Your task to perform on an android device: Open Google Maps and go to "Timeline" Image 0: 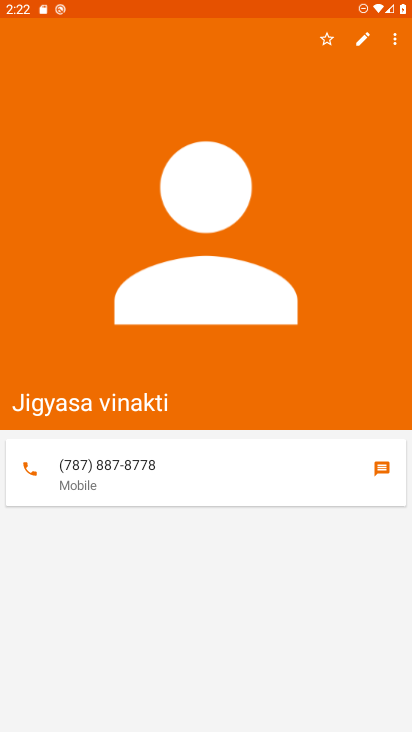
Step 0: press back button
Your task to perform on an android device: Open Google Maps and go to "Timeline" Image 1: 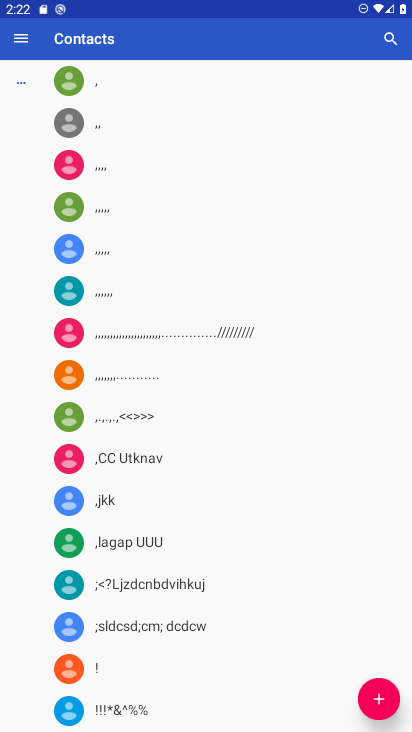
Step 1: press home button
Your task to perform on an android device: Open Google Maps and go to "Timeline" Image 2: 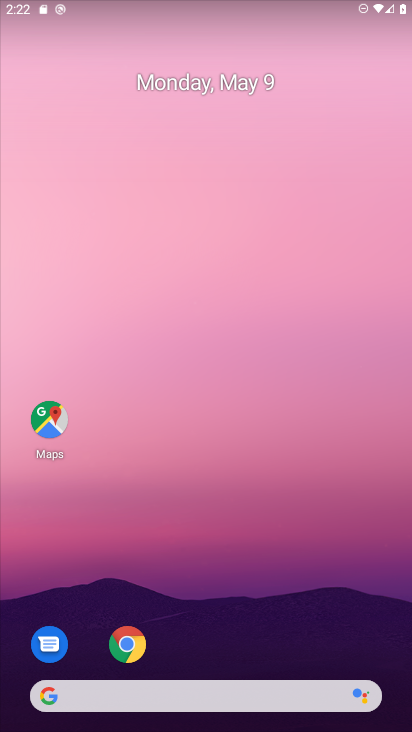
Step 2: click (46, 450)
Your task to perform on an android device: Open Google Maps and go to "Timeline" Image 3: 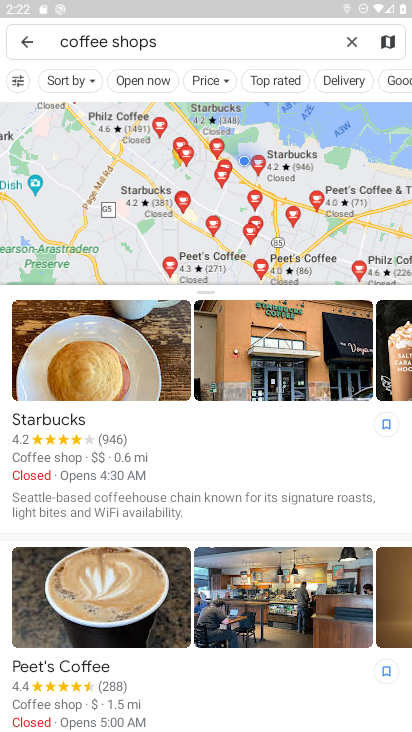
Step 3: click (20, 39)
Your task to perform on an android device: Open Google Maps and go to "Timeline" Image 4: 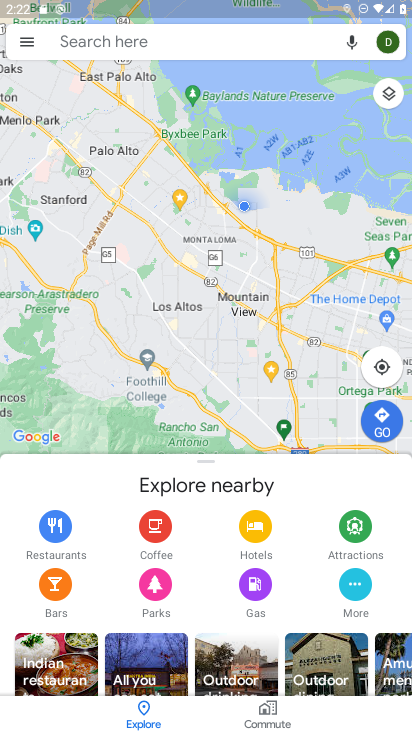
Step 4: click (29, 39)
Your task to perform on an android device: Open Google Maps and go to "Timeline" Image 5: 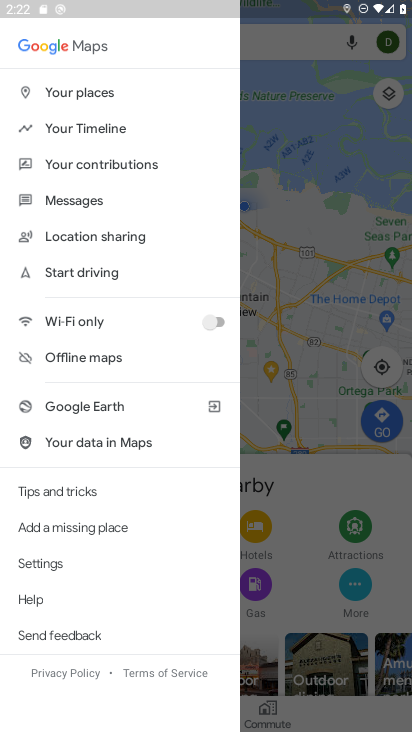
Step 5: click (70, 126)
Your task to perform on an android device: Open Google Maps and go to "Timeline" Image 6: 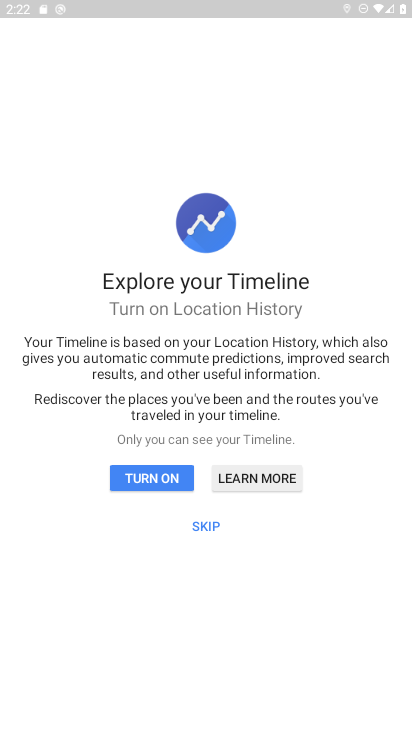
Step 6: click (209, 524)
Your task to perform on an android device: Open Google Maps and go to "Timeline" Image 7: 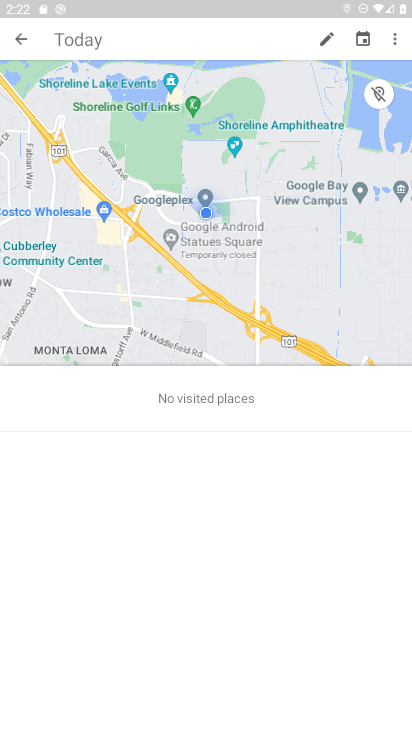
Step 7: task complete